Your task to perform on an android device: Open Google Maps and go to "Timeline" Image 0: 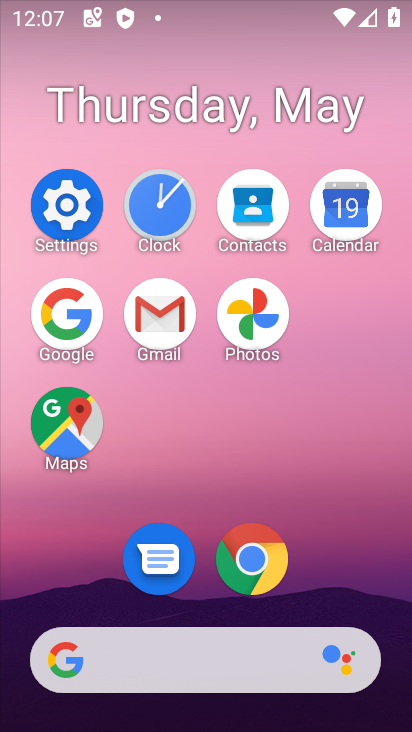
Step 0: click (91, 409)
Your task to perform on an android device: Open Google Maps and go to "Timeline" Image 1: 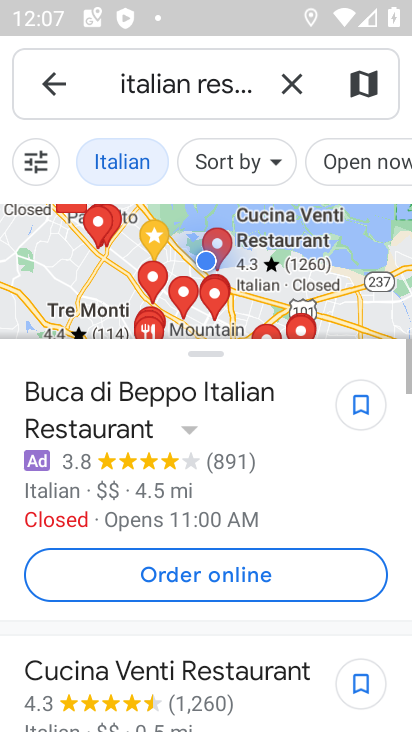
Step 1: click (30, 83)
Your task to perform on an android device: Open Google Maps and go to "Timeline" Image 2: 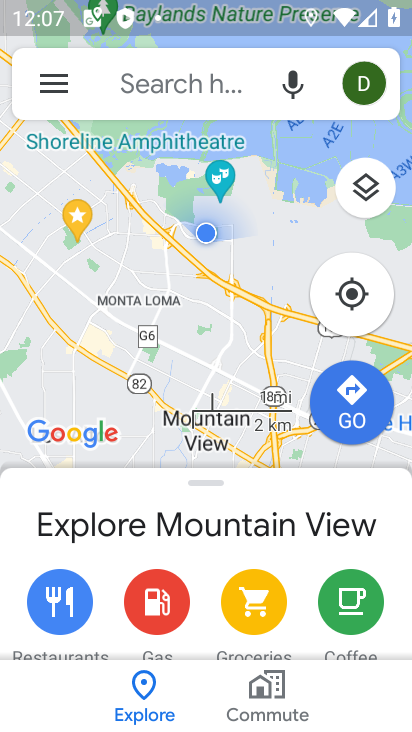
Step 2: click (59, 77)
Your task to perform on an android device: Open Google Maps and go to "Timeline" Image 3: 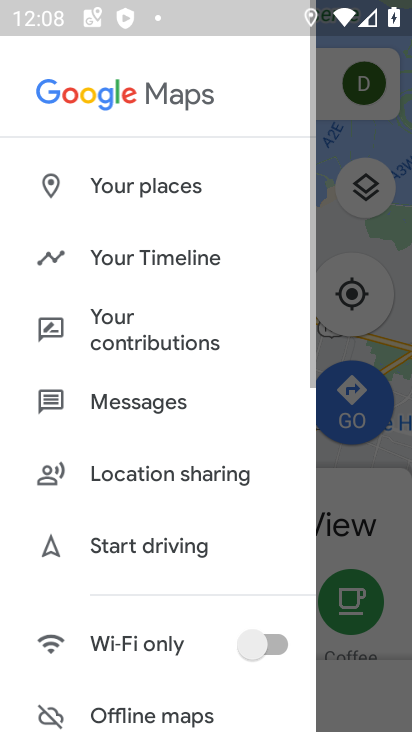
Step 3: click (130, 244)
Your task to perform on an android device: Open Google Maps and go to "Timeline" Image 4: 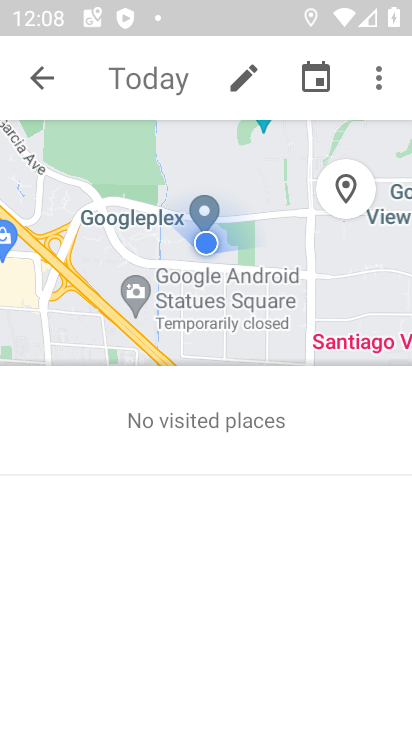
Step 4: task complete